Your task to perform on an android device: Open the phone app and click the voicemail tab. Image 0: 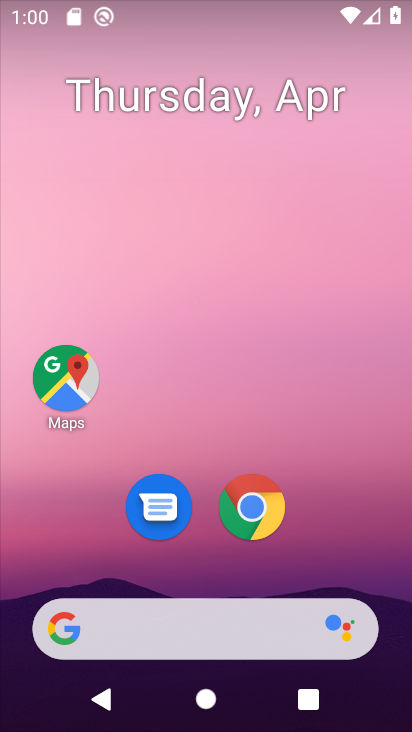
Step 0: drag from (286, 586) to (304, 32)
Your task to perform on an android device: Open the phone app and click the voicemail tab. Image 1: 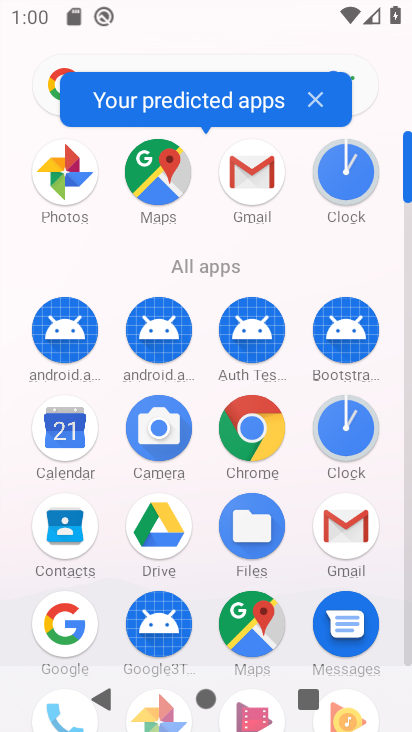
Step 1: drag from (210, 597) to (206, 190)
Your task to perform on an android device: Open the phone app and click the voicemail tab. Image 2: 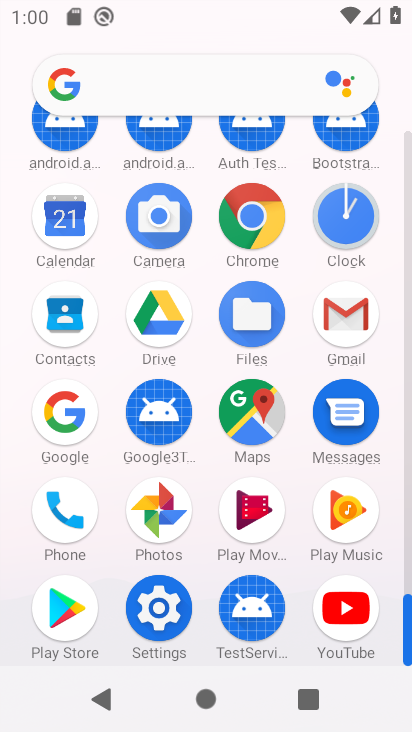
Step 2: click (70, 519)
Your task to perform on an android device: Open the phone app and click the voicemail tab. Image 3: 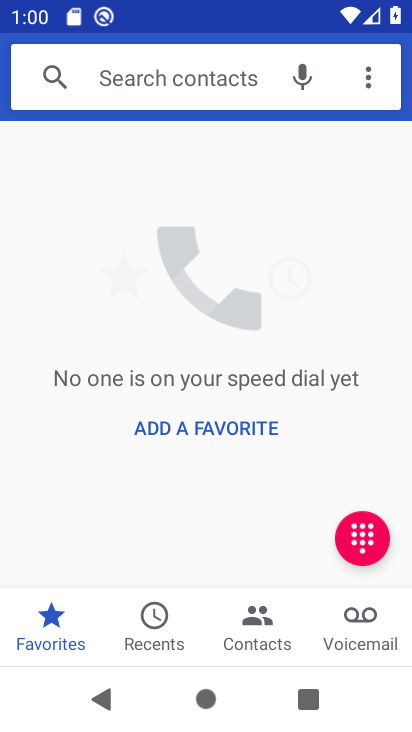
Step 3: click (348, 650)
Your task to perform on an android device: Open the phone app and click the voicemail tab. Image 4: 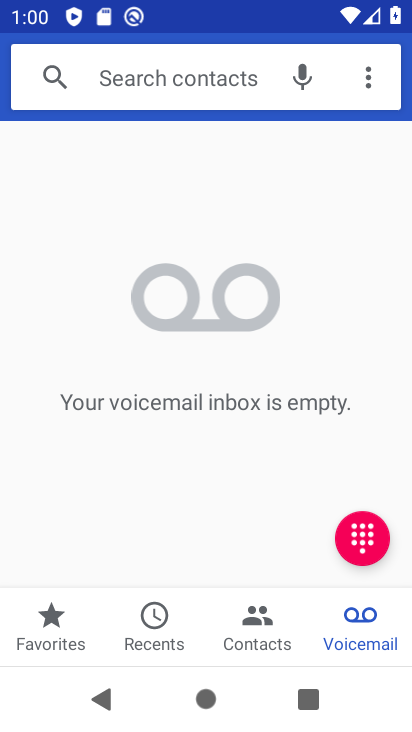
Step 4: task complete